Your task to perform on an android device: toggle pop-ups in chrome Image 0: 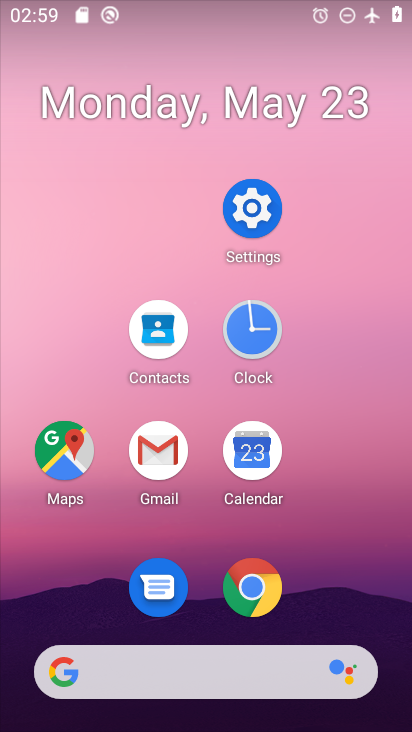
Step 0: click (250, 593)
Your task to perform on an android device: toggle pop-ups in chrome Image 1: 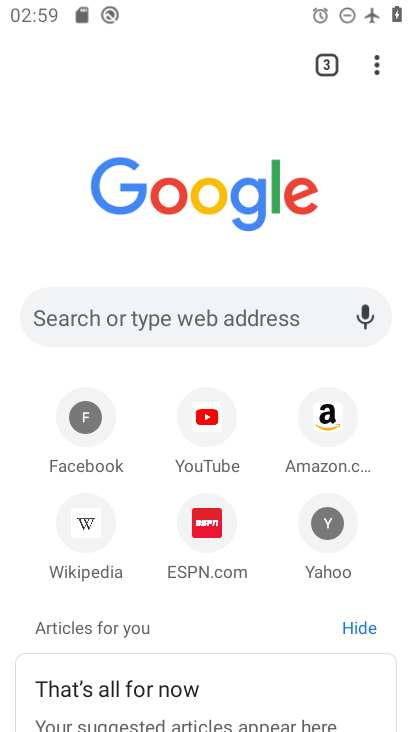
Step 1: click (378, 65)
Your task to perform on an android device: toggle pop-ups in chrome Image 2: 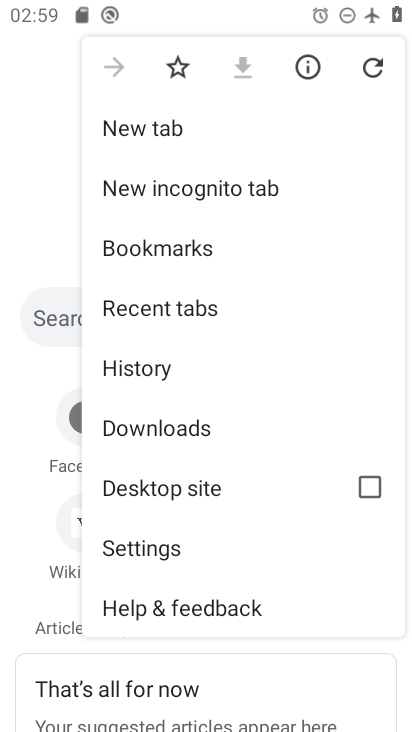
Step 2: click (181, 563)
Your task to perform on an android device: toggle pop-ups in chrome Image 3: 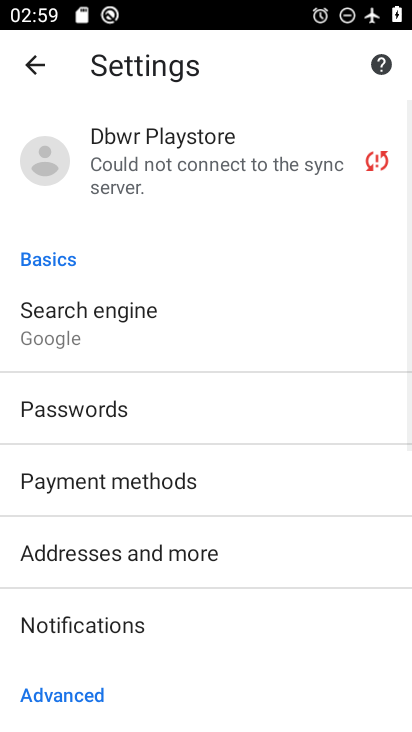
Step 3: drag from (228, 614) to (218, 101)
Your task to perform on an android device: toggle pop-ups in chrome Image 4: 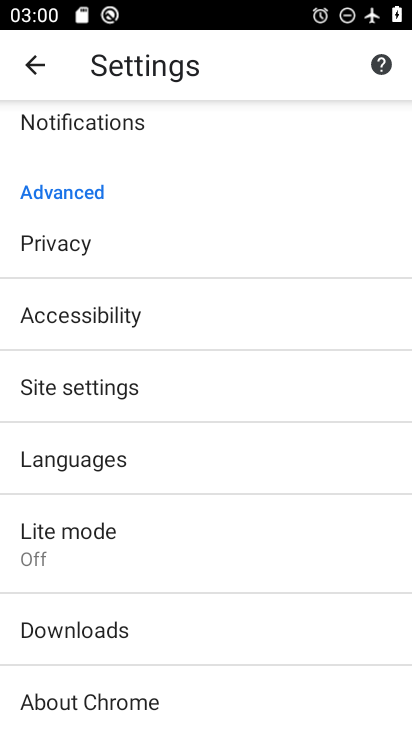
Step 4: click (225, 404)
Your task to perform on an android device: toggle pop-ups in chrome Image 5: 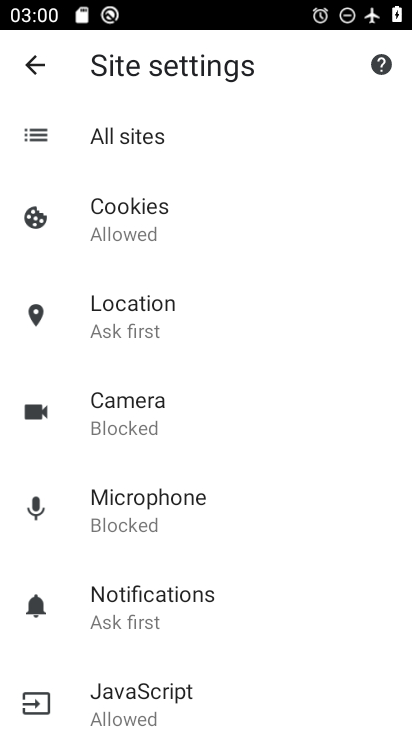
Step 5: drag from (240, 711) to (266, 110)
Your task to perform on an android device: toggle pop-ups in chrome Image 6: 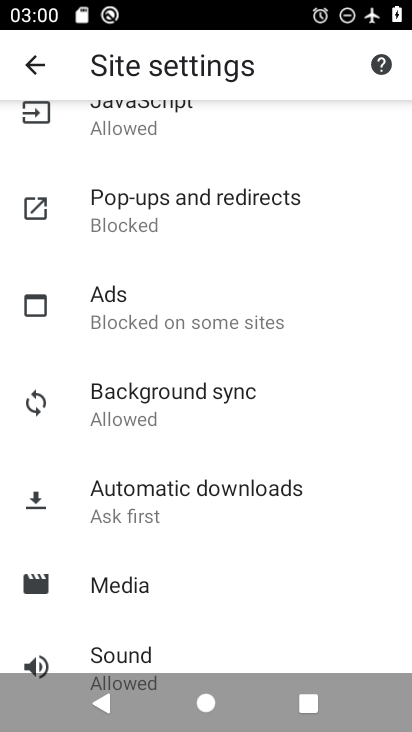
Step 6: click (282, 209)
Your task to perform on an android device: toggle pop-ups in chrome Image 7: 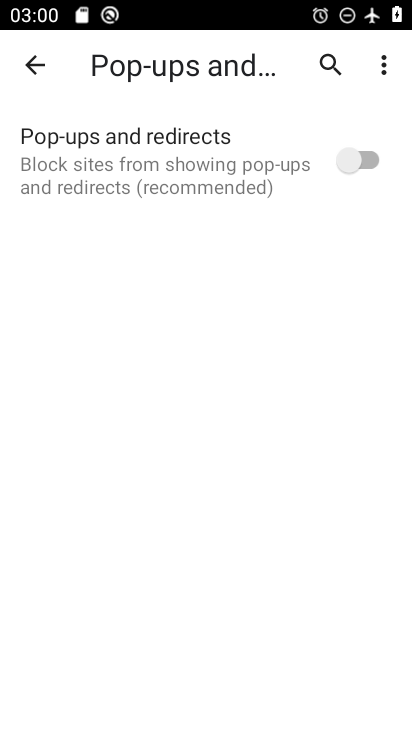
Step 7: click (333, 175)
Your task to perform on an android device: toggle pop-ups in chrome Image 8: 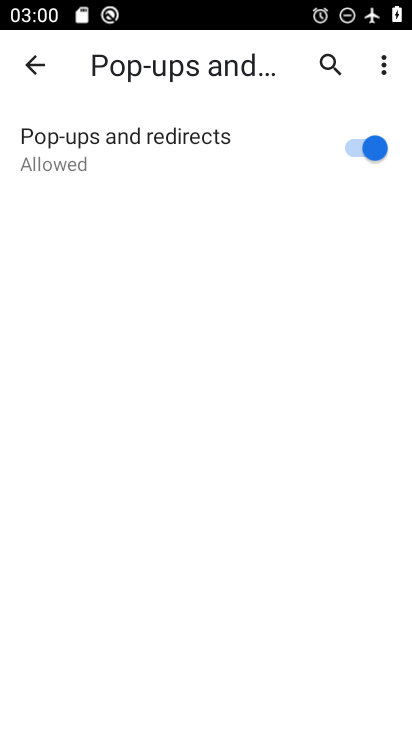
Step 8: task complete